Your task to perform on an android device: What's the weather today? Image 0: 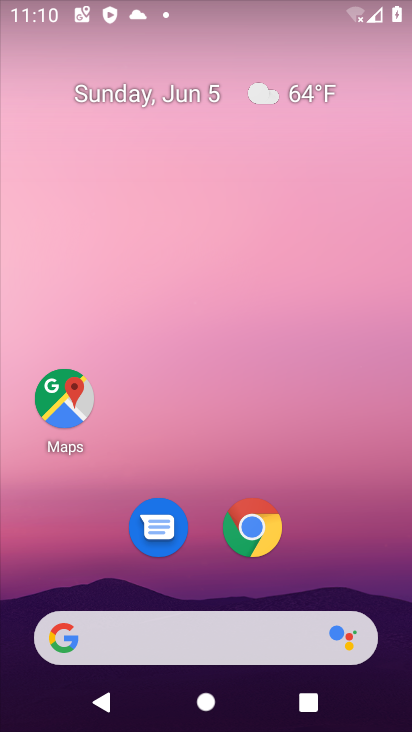
Step 0: click (257, 637)
Your task to perform on an android device: What's the weather today? Image 1: 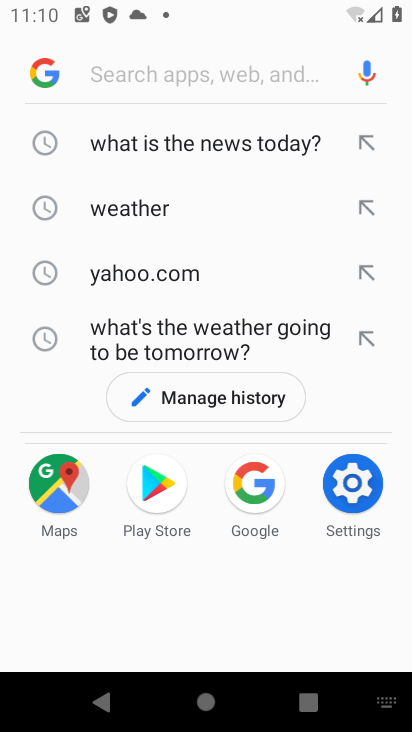
Step 1: click (182, 224)
Your task to perform on an android device: What's the weather today? Image 2: 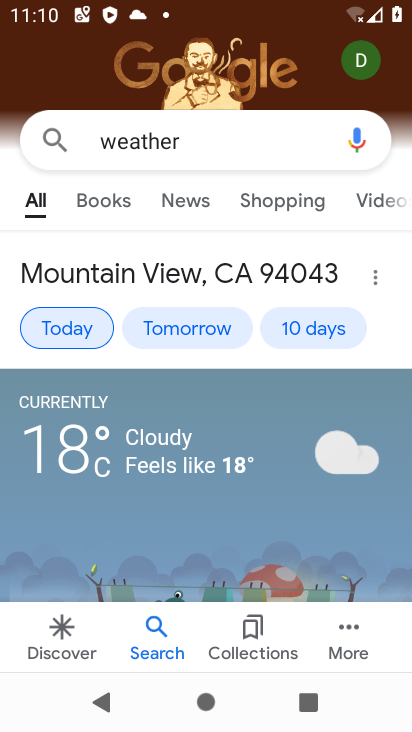
Step 2: task complete